Your task to perform on an android device: open wifi settings Image 0: 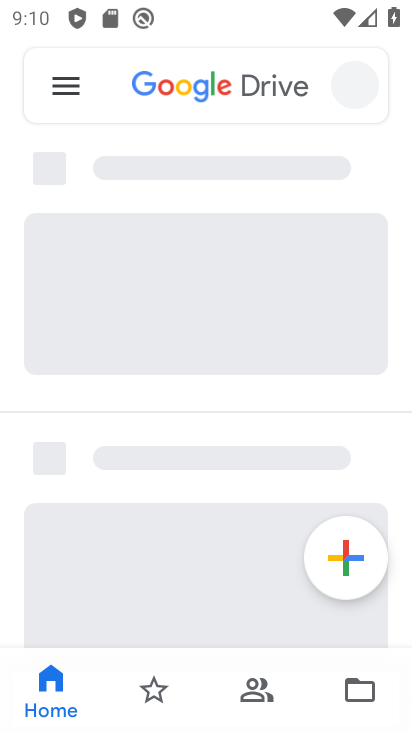
Step 0: press home button
Your task to perform on an android device: open wifi settings Image 1: 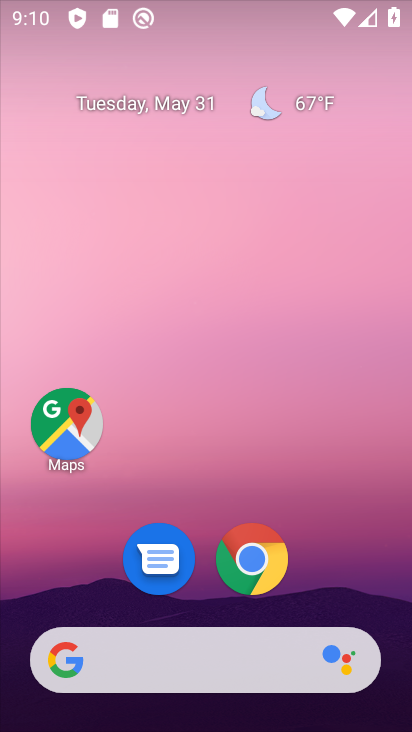
Step 1: drag from (346, 531) to (346, 100)
Your task to perform on an android device: open wifi settings Image 2: 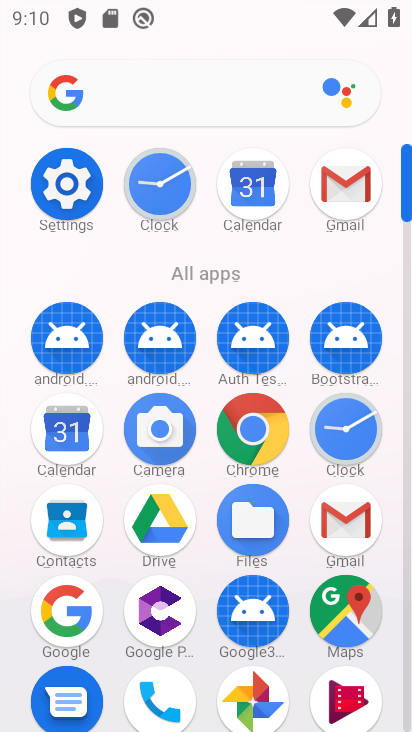
Step 2: click (69, 186)
Your task to perform on an android device: open wifi settings Image 3: 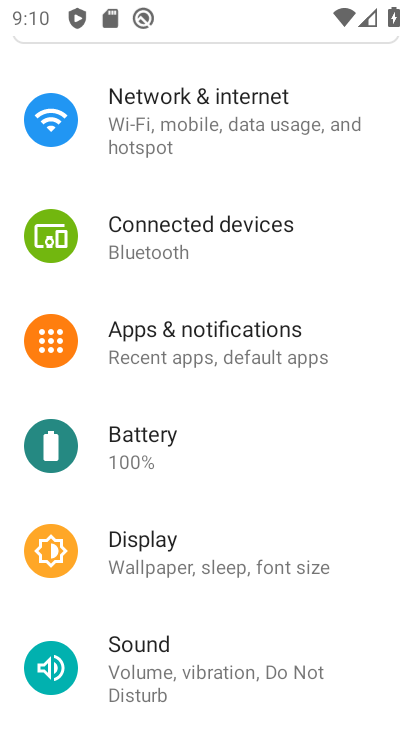
Step 3: click (176, 123)
Your task to perform on an android device: open wifi settings Image 4: 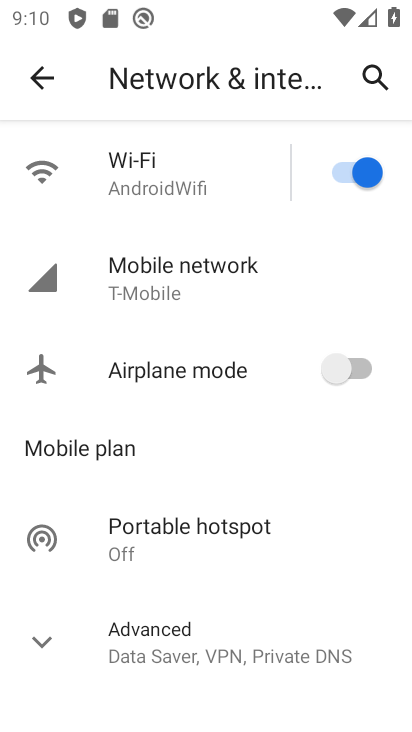
Step 4: click (173, 181)
Your task to perform on an android device: open wifi settings Image 5: 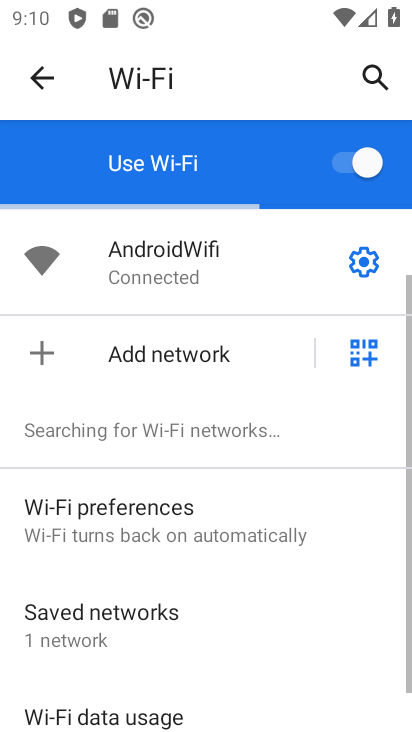
Step 5: click (196, 258)
Your task to perform on an android device: open wifi settings Image 6: 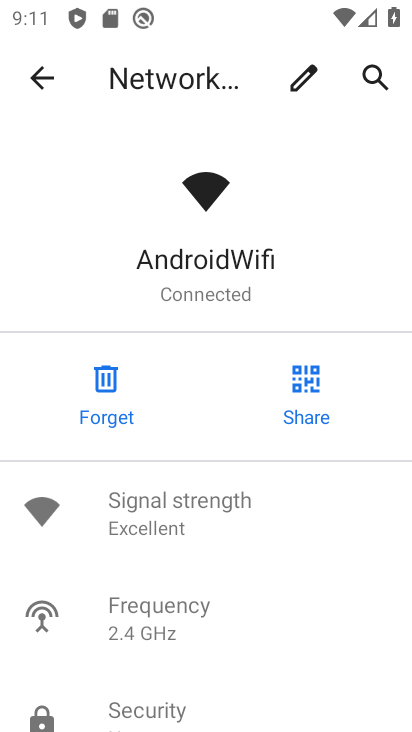
Step 6: task complete